Your task to perform on an android device: Open Google Maps and go to "Timeline" Image 0: 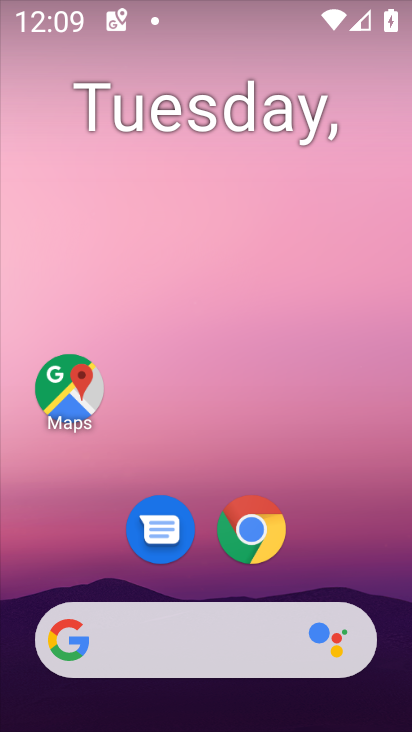
Step 0: click (93, 380)
Your task to perform on an android device: Open Google Maps and go to "Timeline" Image 1: 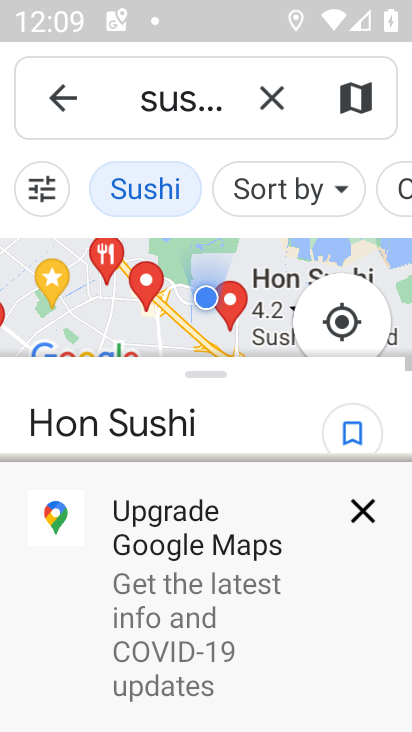
Step 1: click (52, 86)
Your task to perform on an android device: Open Google Maps and go to "Timeline" Image 2: 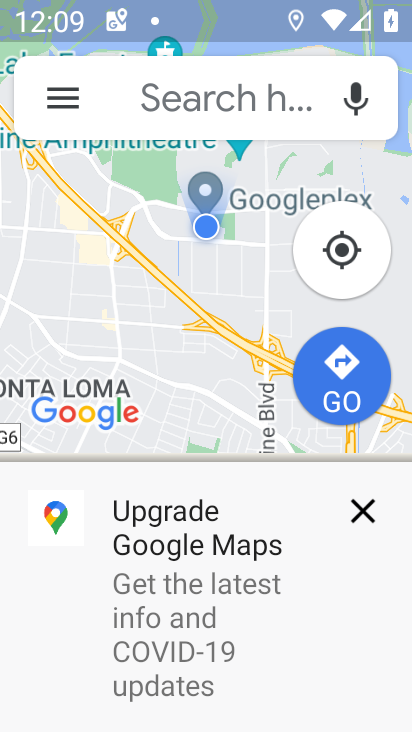
Step 2: click (64, 88)
Your task to perform on an android device: Open Google Maps and go to "Timeline" Image 3: 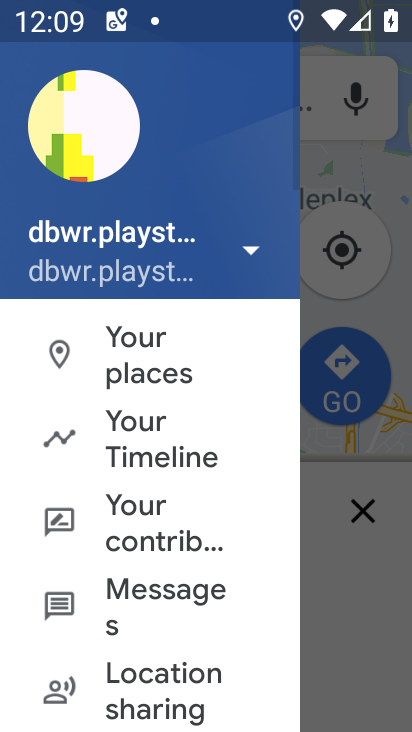
Step 3: click (138, 442)
Your task to perform on an android device: Open Google Maps and go to "Timeline" Image 4: 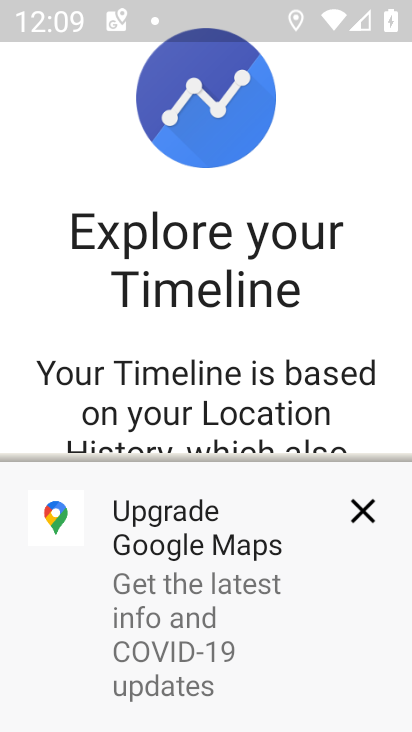
Step 4: click (366, 500)
Your task to perform on an android device: Open Google Maps and go to "Timeline" Image 5: 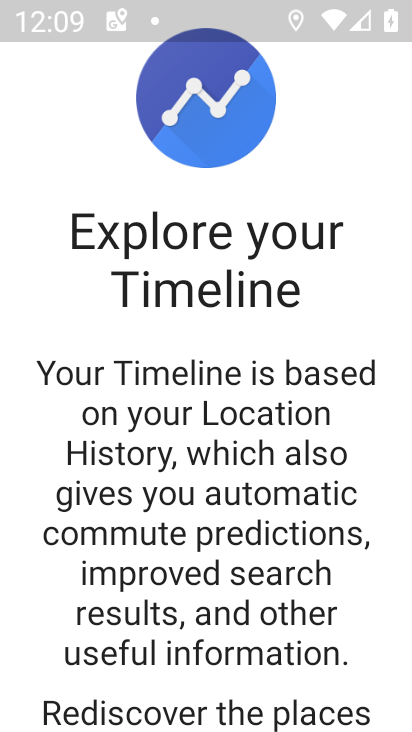
Step 5: task complete